Your task to perform on an android device: move an email to a new category in the gmail app Image 0: 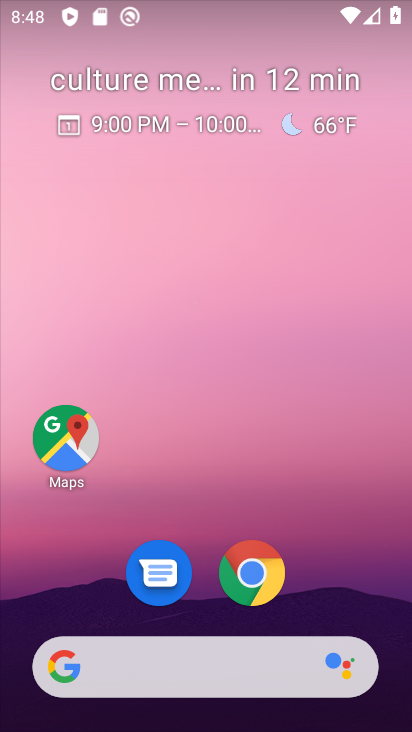
Step 0: drag from (210, 619) to (291, 99)
Your task to perform on an android device: move an email to a new category in the gmail app Image 1: 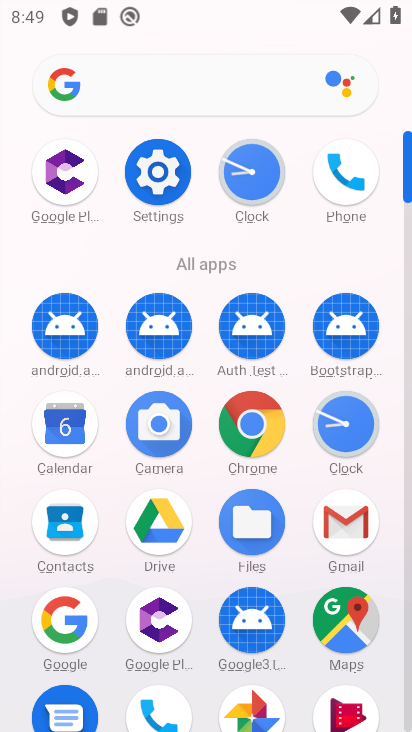
Step 1: click (341, 507)
Your task to perform on an android device: move an email to a new category in the gmail app Image 2: 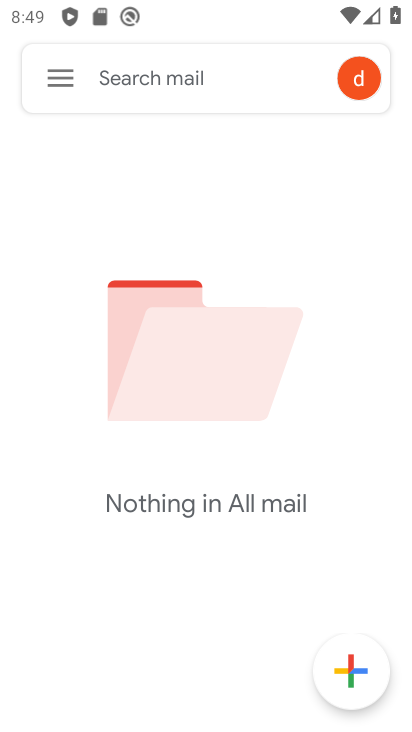
Step 2: click (61, 70)
Your task to perform on an android device: move an email to a new category in the gmail app Image 3: 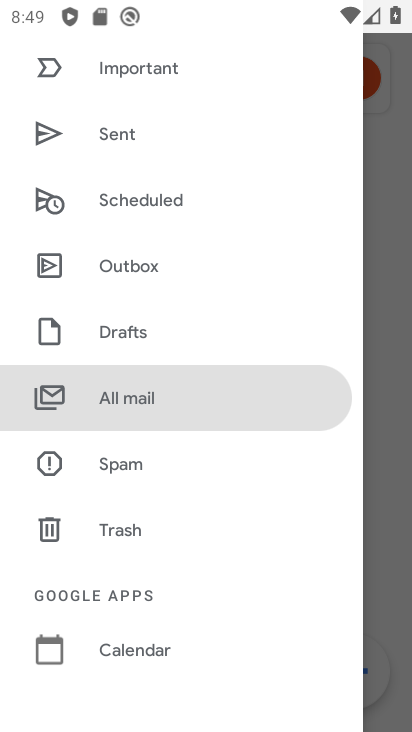
Step 3: click (135, 395)
Your task to perform on an android device: move an email to a new category in the gmail app Image 4: 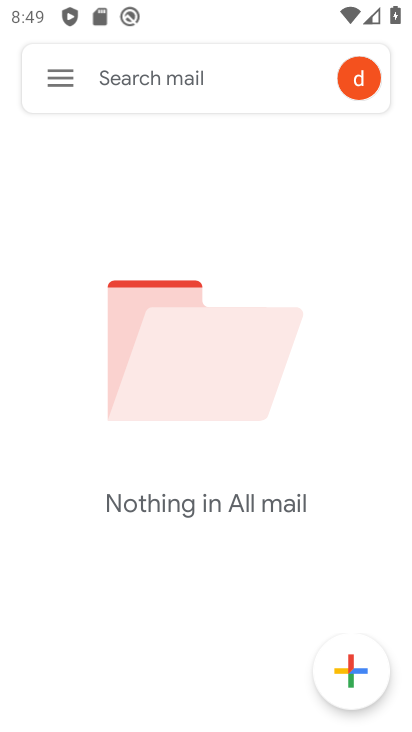
Step 4: task complete